Your task to perform on an android device: Turn on the flashlight Image 0: 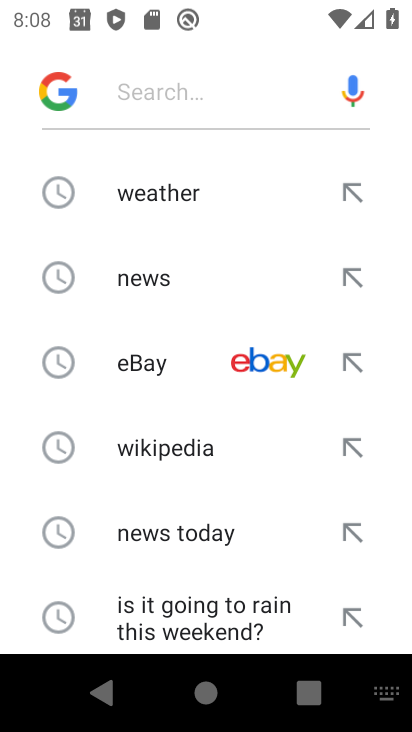
Step 0: press home button
Your task to perform on an android device: Turn on the flashlight Image 1: 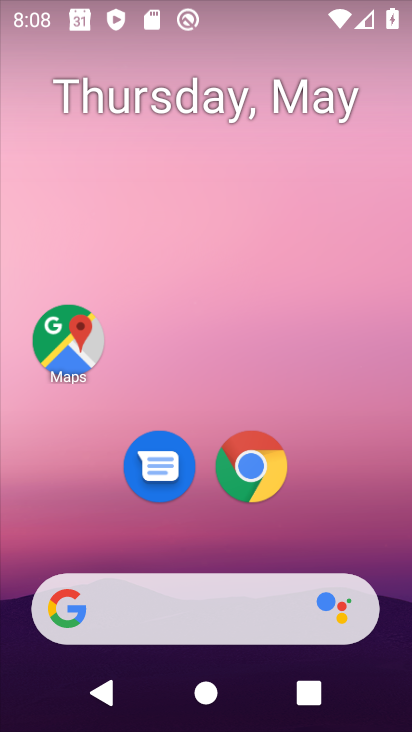
Step 1: drag from (256, 13) to (253, 432)
Your task to perform on an android device: Turn on the flashlight Image 2: 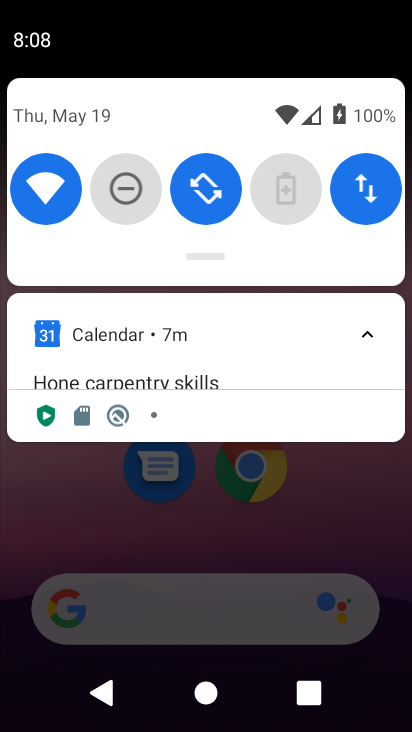
Step 2: click (253, 432)
Your task to perform on an android device: Turn on the flashlight Image 3: 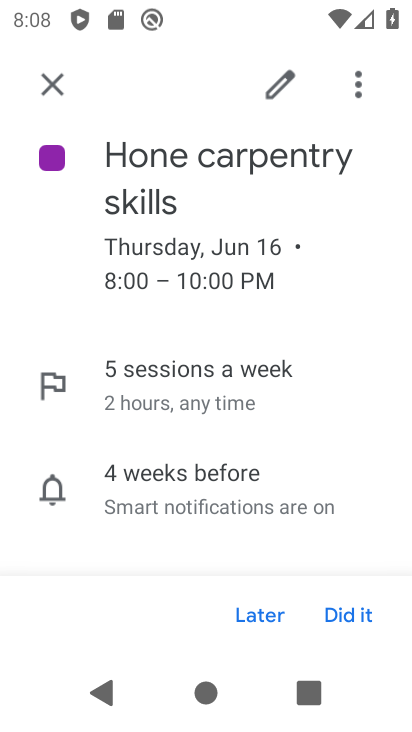
Step 3: drag from (215, 8) to (236, 428)
Your task to perform on an android device: Turn on the flashlight Image 4: 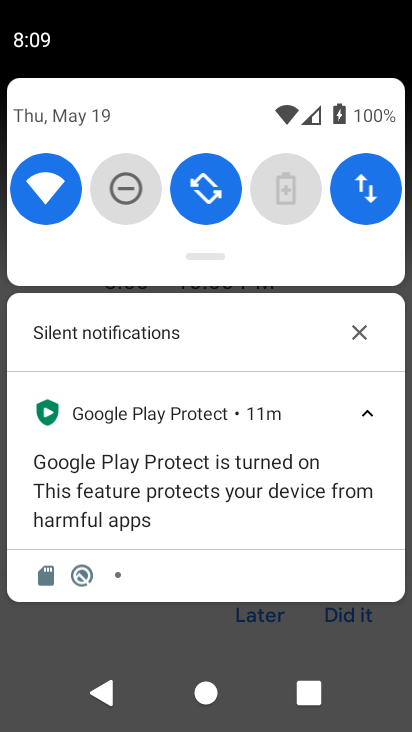
Step 4: drag from (242, 215) to (256, 520)
Your task to perform on an android device: Turn on the flashlight Image 5: 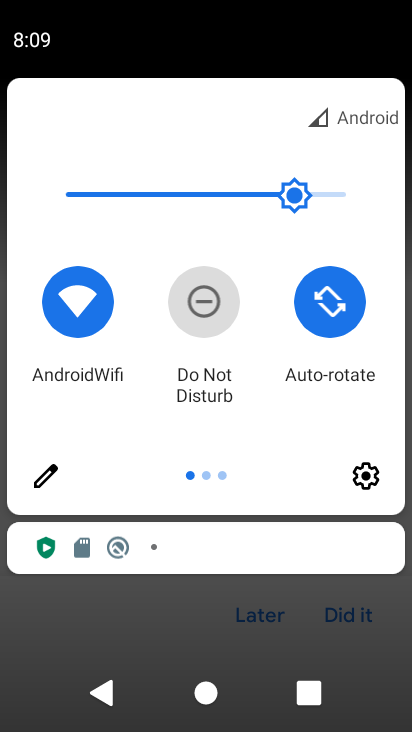
Step 5: click (50, 481)
Your task to perform on an android device: Turn on the flashlight Image 6: 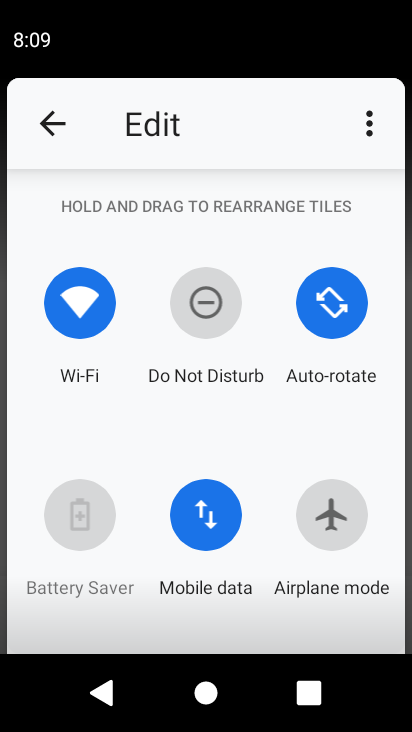
Step 6: task complete